Your task to perform on an android device: Go to Reddit.com Image 0: 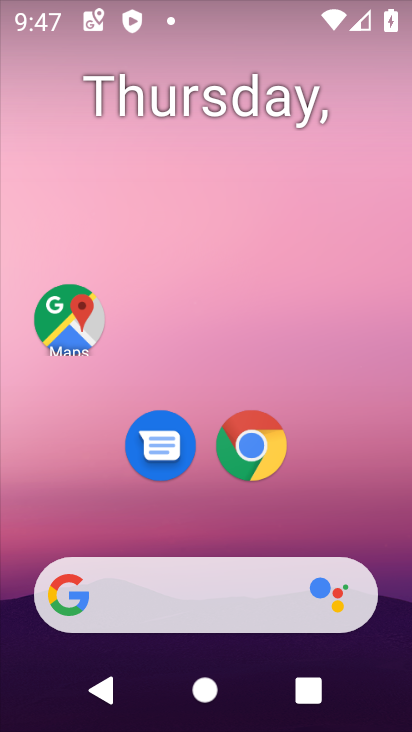
Step 0: click (243, 436)
Your task to perform on an android device: Go to Reddit.com Image 1: 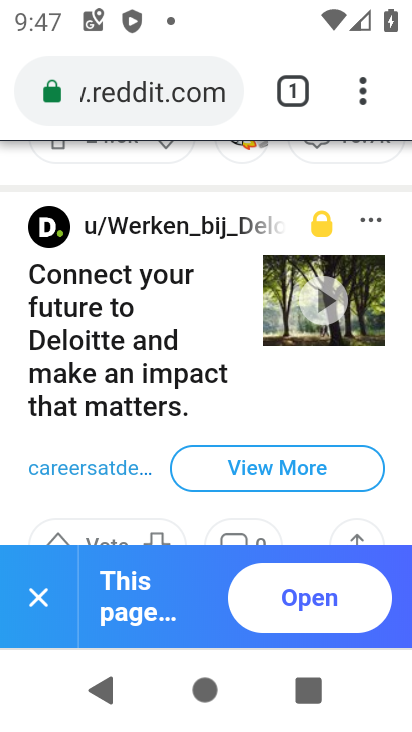
Step 1: task complete